Your task to perform on an android device: Go to battery settings Image 0: 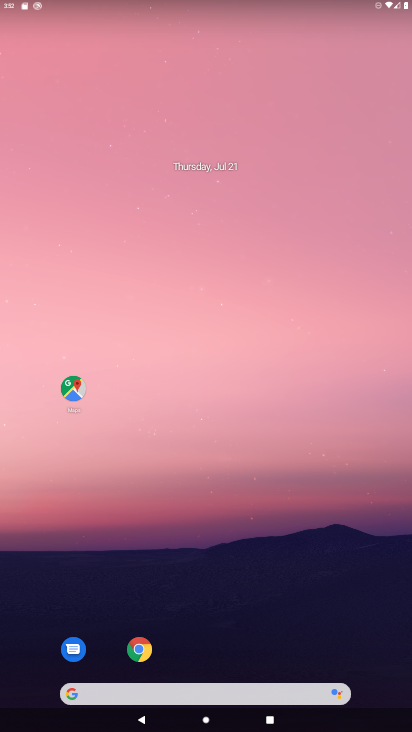
Step 0: drag from (216, 633) to (187, 201)
Your task to perform on an android device: Go to battery settings Image 1: 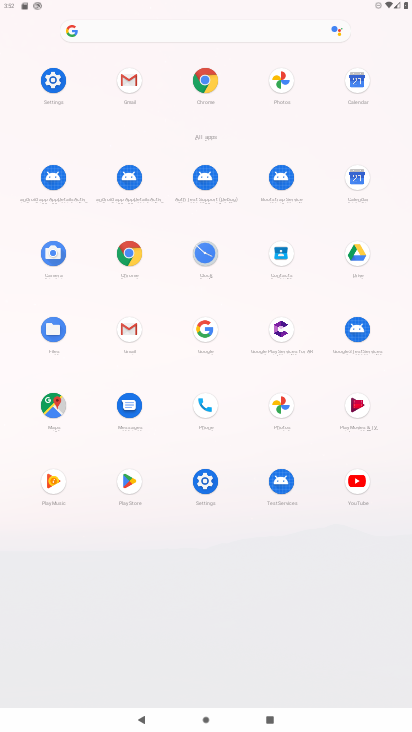
Step 1: click (192, 468)
Your task to perform on an android device: Go to battery settings Image 2: 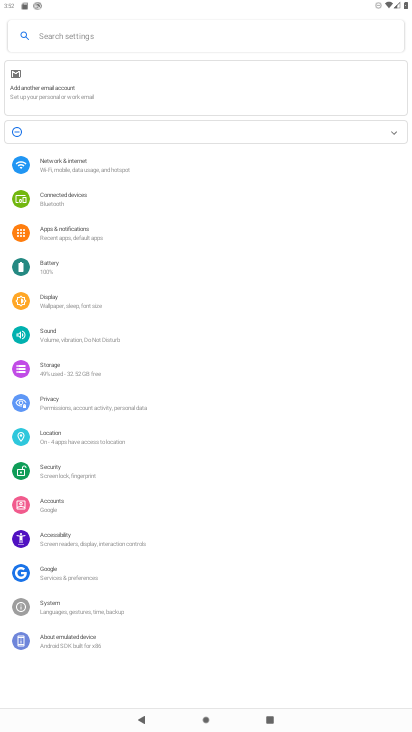
Step 2: click (74, 268)
Your task to perform on an android device: Go to battery settings Image 3: 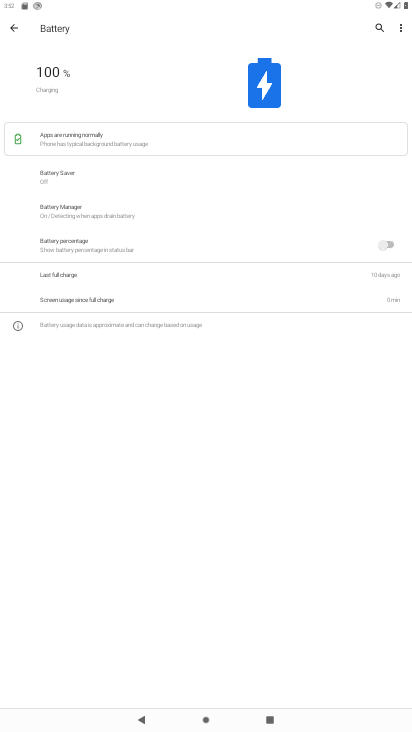
Step 3: task complete